Your task to perform on an android device: move an email to a new category in the gmail app Image 0: 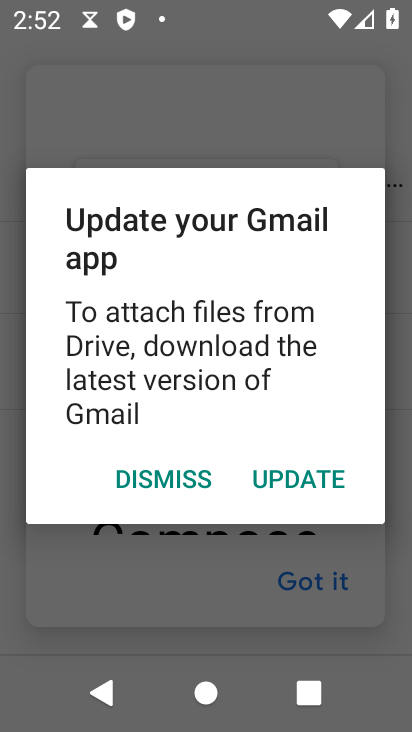
Step 0: press home button
Your task to perform on an android device: move an email to a new category in the gmail app Image 1: 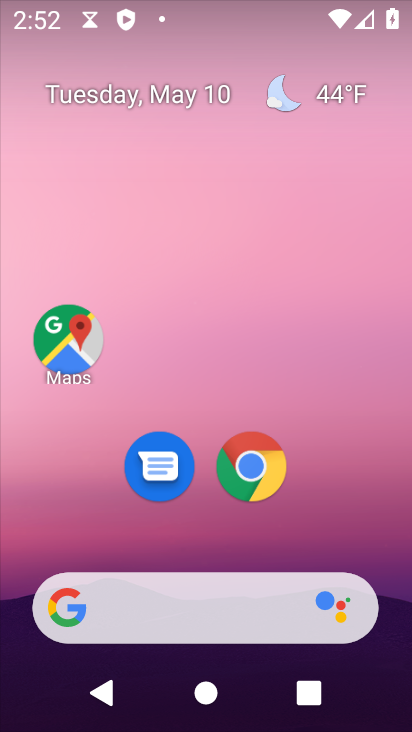
Step 1: drag from (333, 501) to (276, 20)
Your task to perform on an android device: move an email to a new category in the gmail app Image 2: 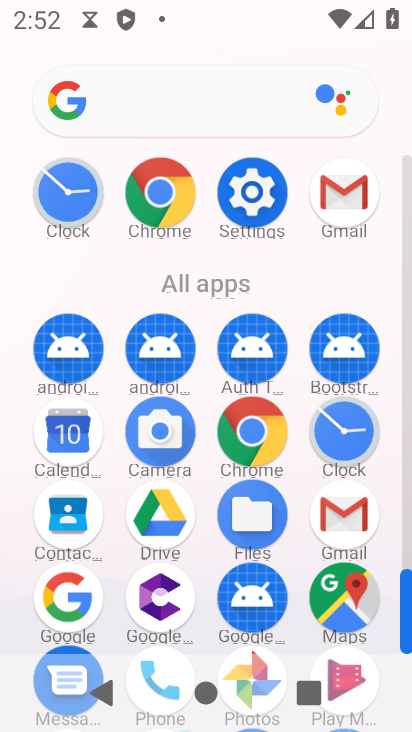
Step 2: click (340, 197)
Your task to perform on an android device: move an email to a new category in the gmail app Image 3: 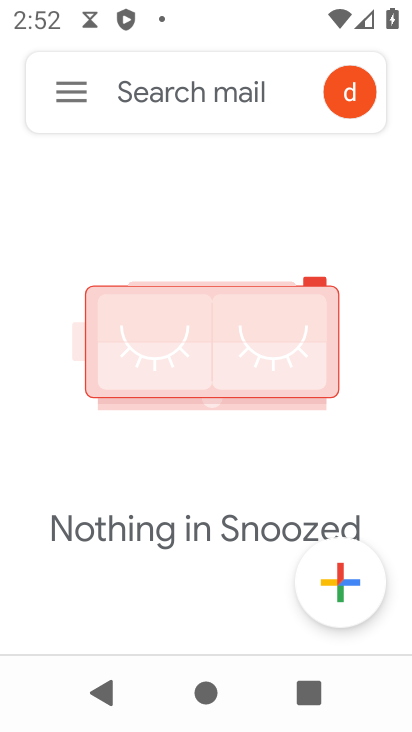
Step 3: click (72, 94)
Your task to perform on an android device: move an email to a new category in the gmail app Image 4: 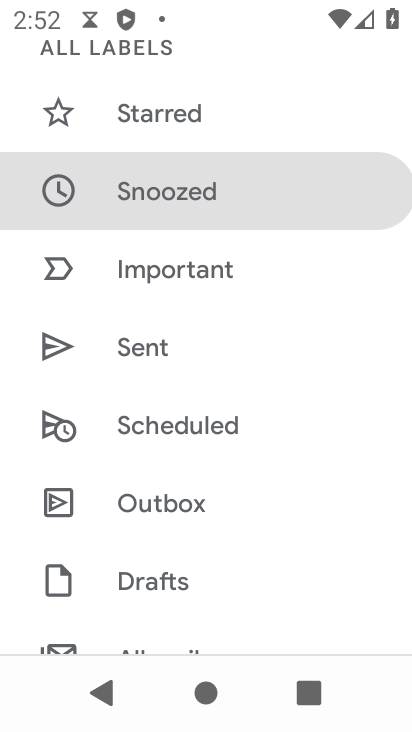
Step 4: drag from (183, 244) to (212, 369)
Your task to perform on an android device: move an email to a new category in the gmail app Image 5: 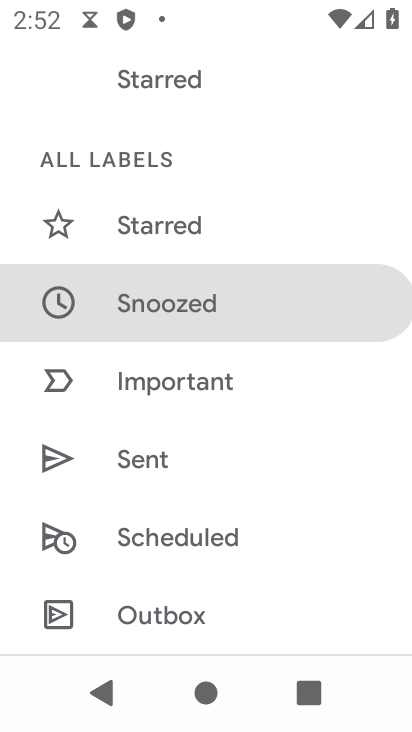
Step 5: drag from (225, 158) to (234, 345)
Your task to perform on an android device: move an email to a new category in the gmail app Image 6: 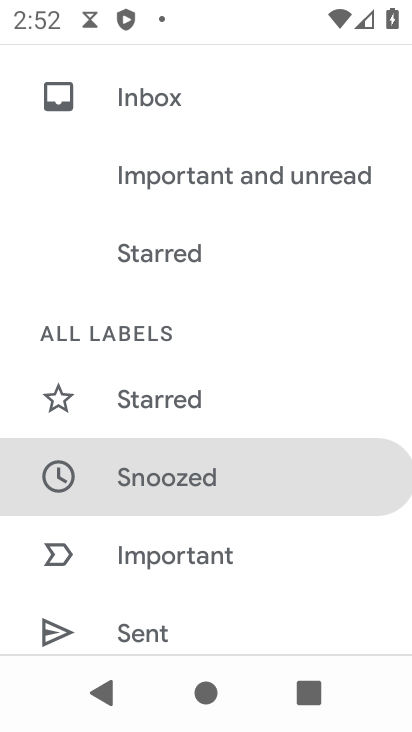
Step 6: click (160, 97)
Your task to perform on an android device: move an email to a new category in the gmail app Image 7: 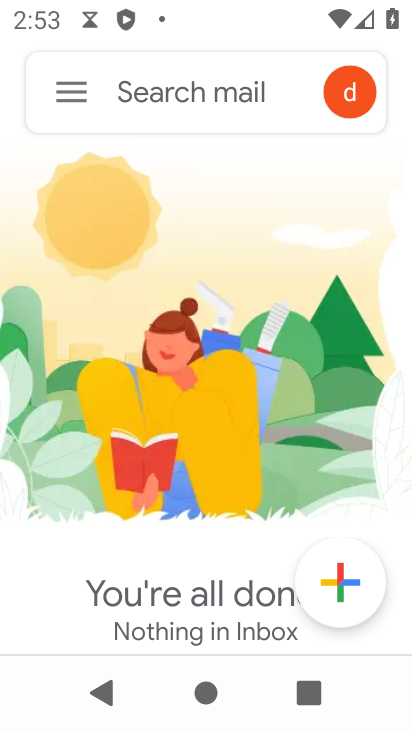
Step 7: click (80, 102)
Your task to perform on an android device: move an email to a new category in the gmail app Image 8: 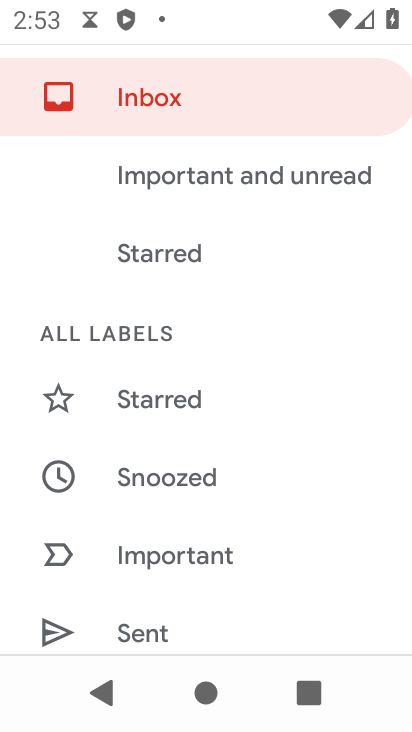
Step 8: drag from (189, 378) to (213, 239)
Your task to perform on an android device: move an email to a new category in the gmail app Image 9: 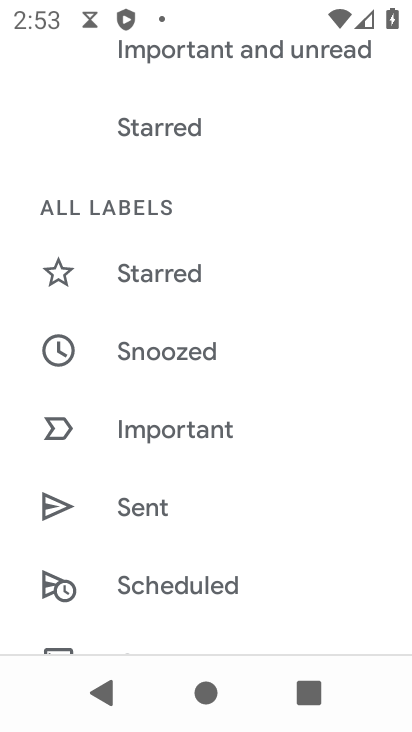
Step 9: drag from (161, 391) to (213, 271)
Your task to perform on an android device: move an email to a new category in the gmail app Image 10: 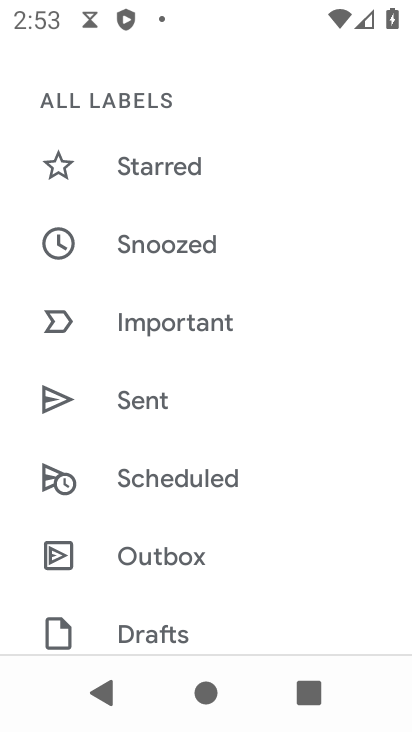
Step 10: drag from (179, 396) to (216, 273)
Your task to perform on an android device: move an email to a new category in the gmail app Image 11: 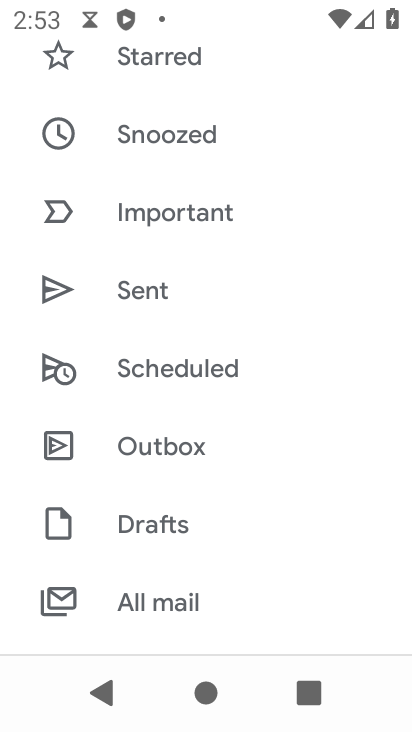
Step 11: drag from (173, 406) to (246, 276)
Your task to perform on an android device: move an email to a new category in the gmail app Image 12: 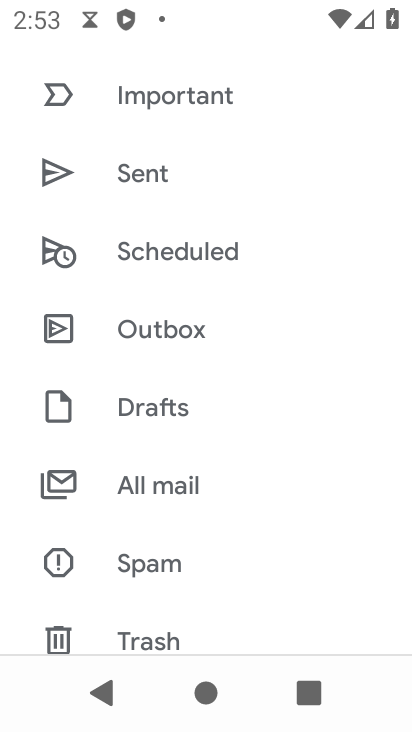
Step 12: drag from (150, 450) to (219, 337)
Your task to perform on an android device: move an email to a new category in the gmail app Image 13: 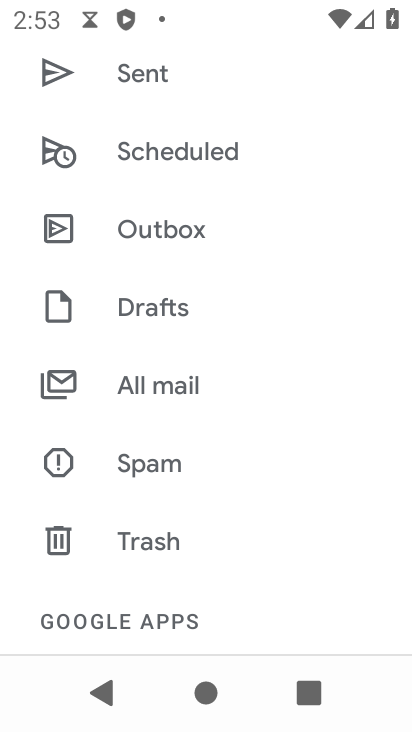
Step 13: click (167, 375)
Your task to perform on an android device: move an email to a new category in the gmail app Image 14: 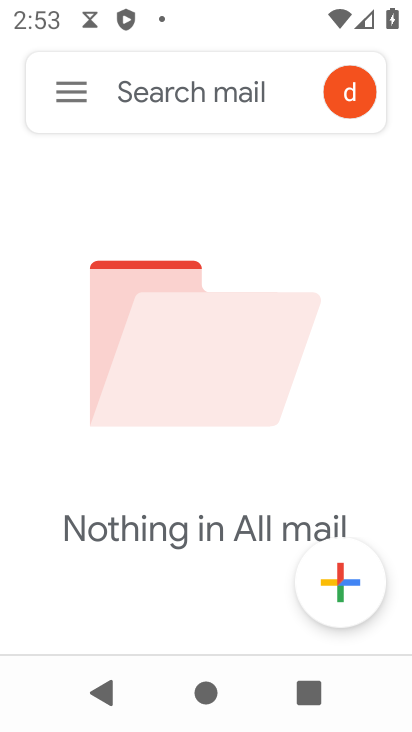
Step 14: task complete